Your task to perform on an android device: Go to Amazon Image 0: 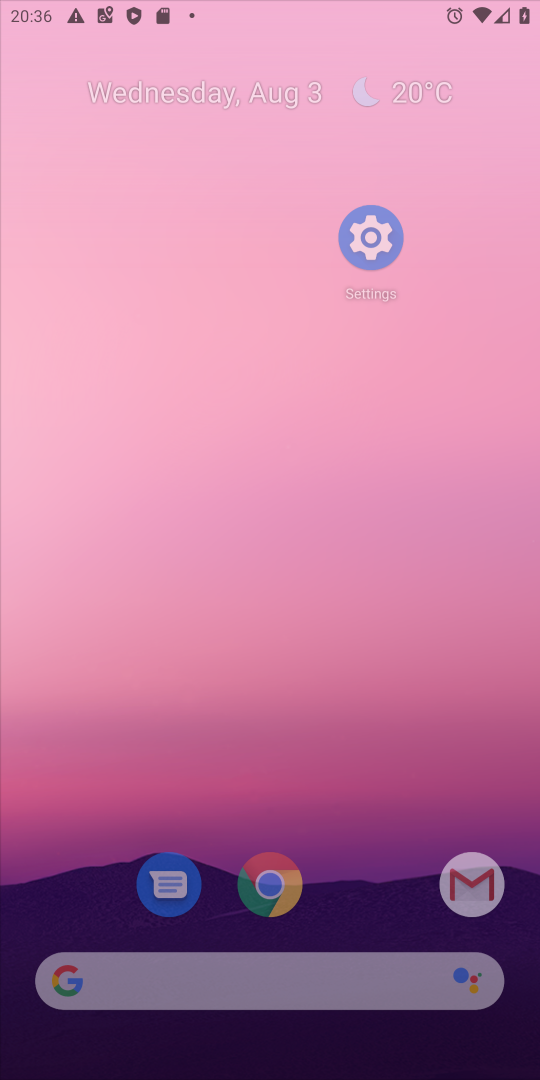
Step 0: press home button
Your task to perform on an android device: Go to Amazon Image 1: 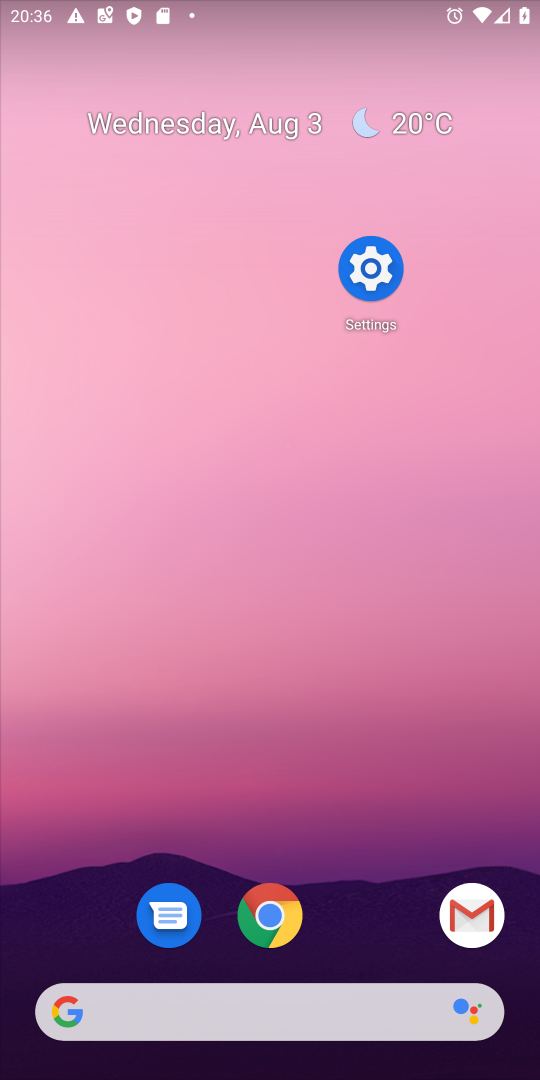
Step 1: drag from (318, 1038) to (352, 194)
Your task to perform on an android device: Go to Amazon Image 2: 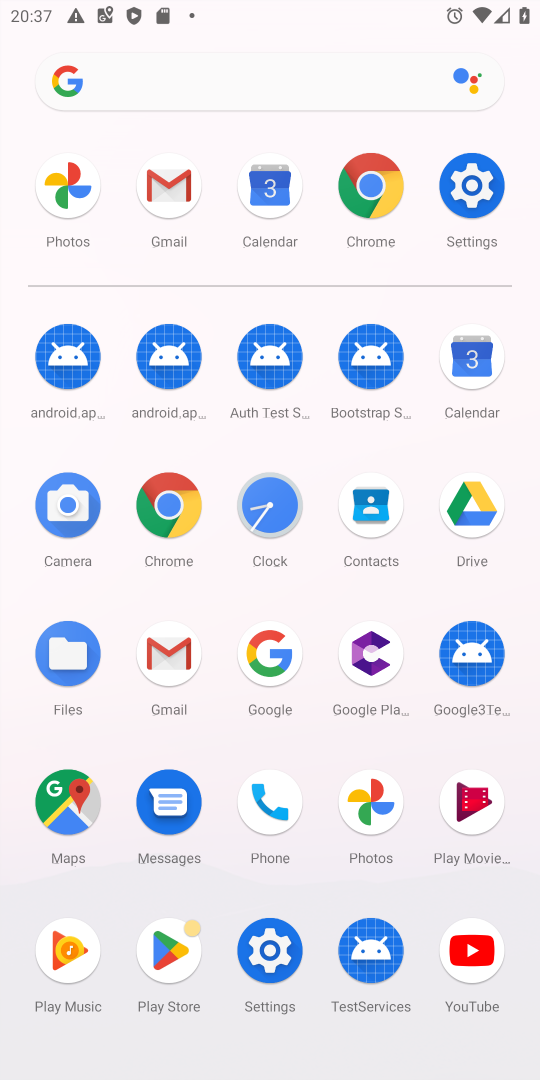
Step 2: click (365, 195)
Your task to perform on an android device: Go to Amazon Image 3: 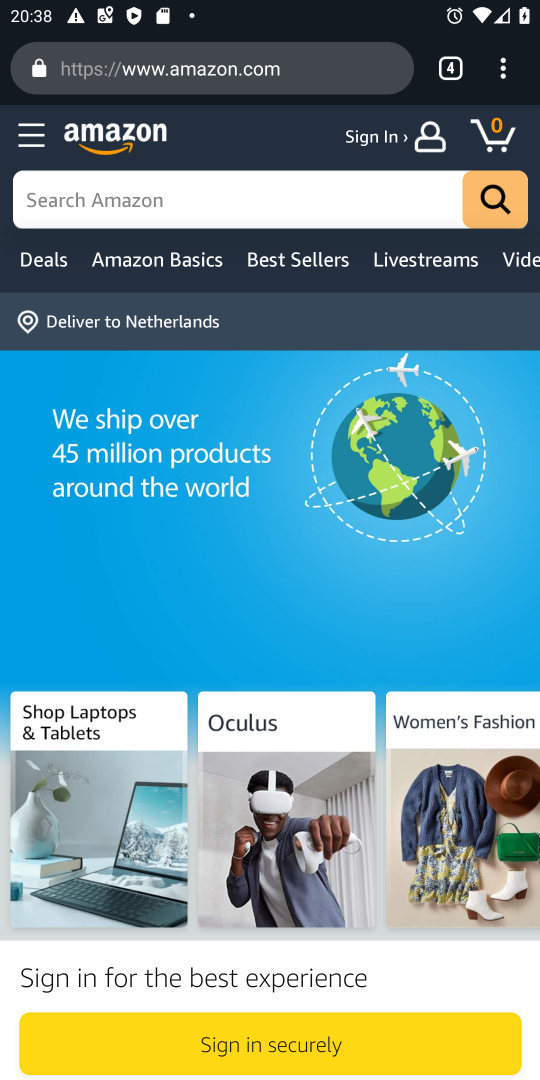
Step 3: task complete